Your task to perform on an android device: Search for "bose soundlink" on ebay, select the first entry, and add it to the cart. Image 0: 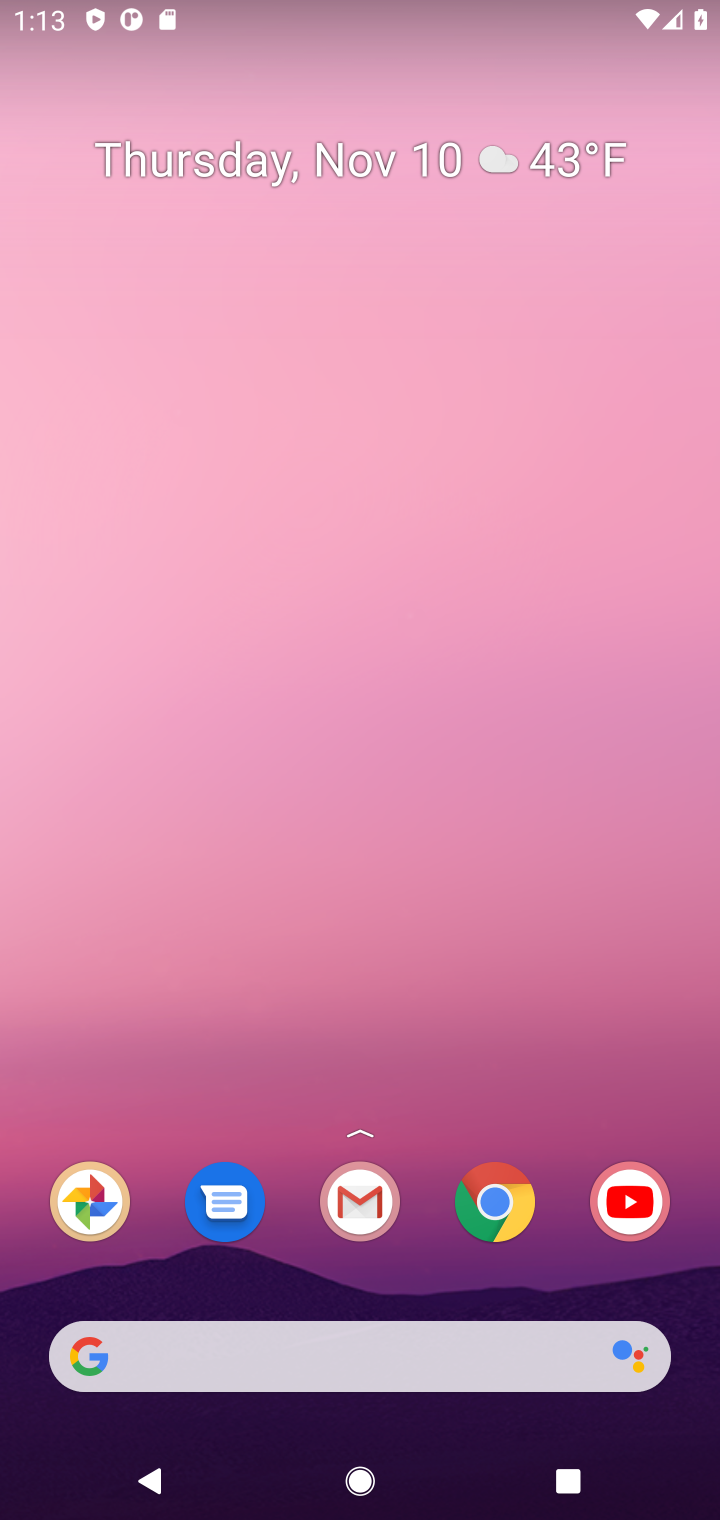
Step 0: click (486, 1184)
Your task to perform on an android device: Search for "bose soundlink" on ebay, select the first entry, and add it to the cart. Image 1: 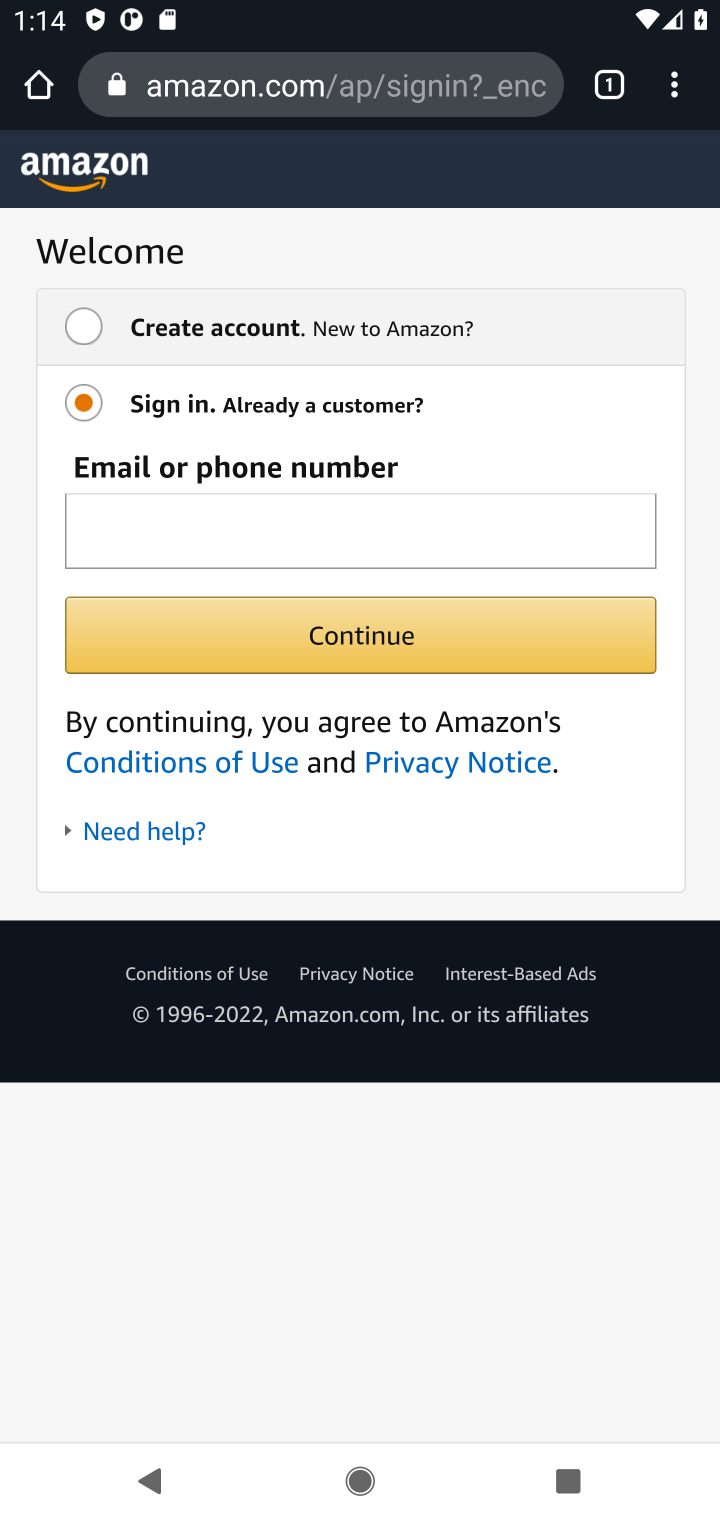
Step 1: click (383, 84)
Your task to perform on an android device: Search for "bose soundlink" on ebay, select the first entry, and add it to the cart. Image 2: 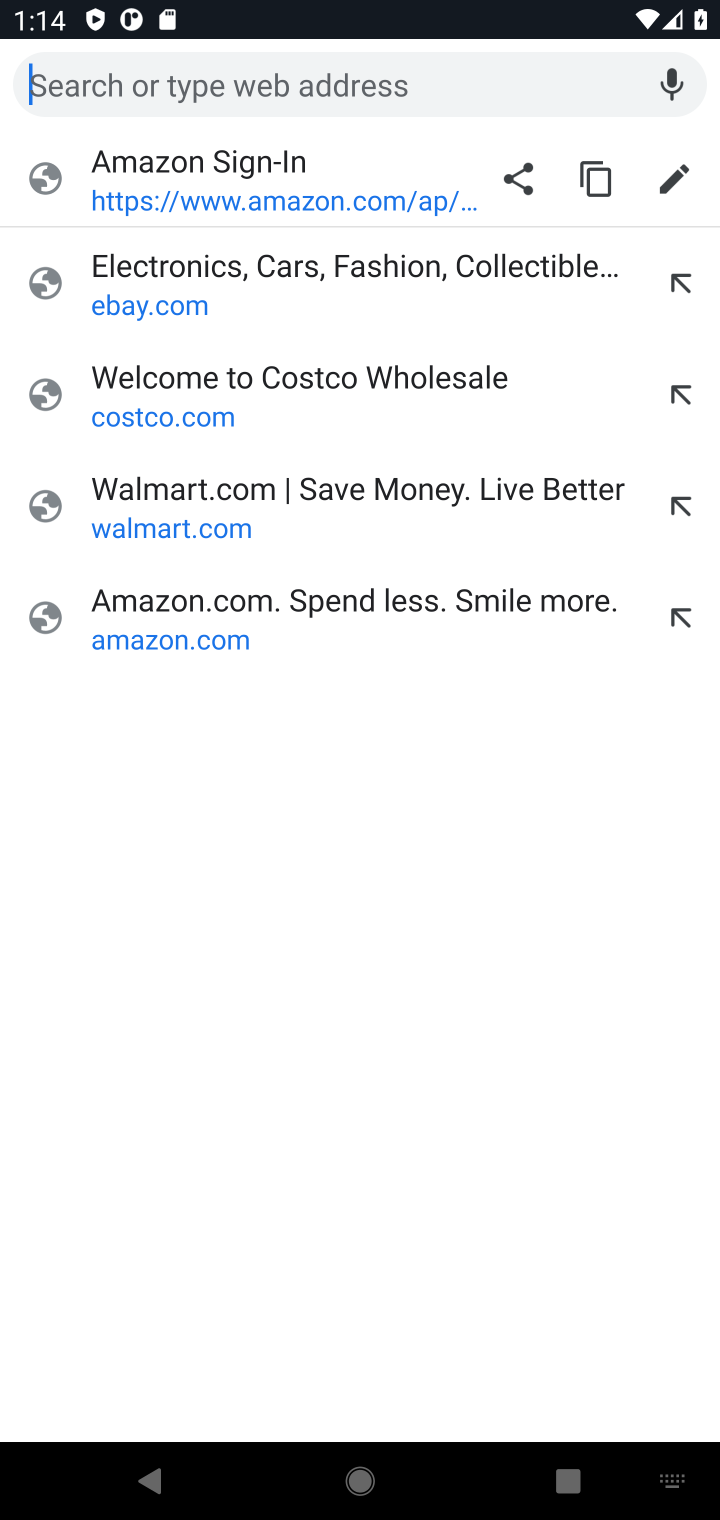
Step 2: type "ebay"
Your task to perform on an android device: Search for "bose soundlink" on ebay, select the first entry, and add it to the cart. Image 3: 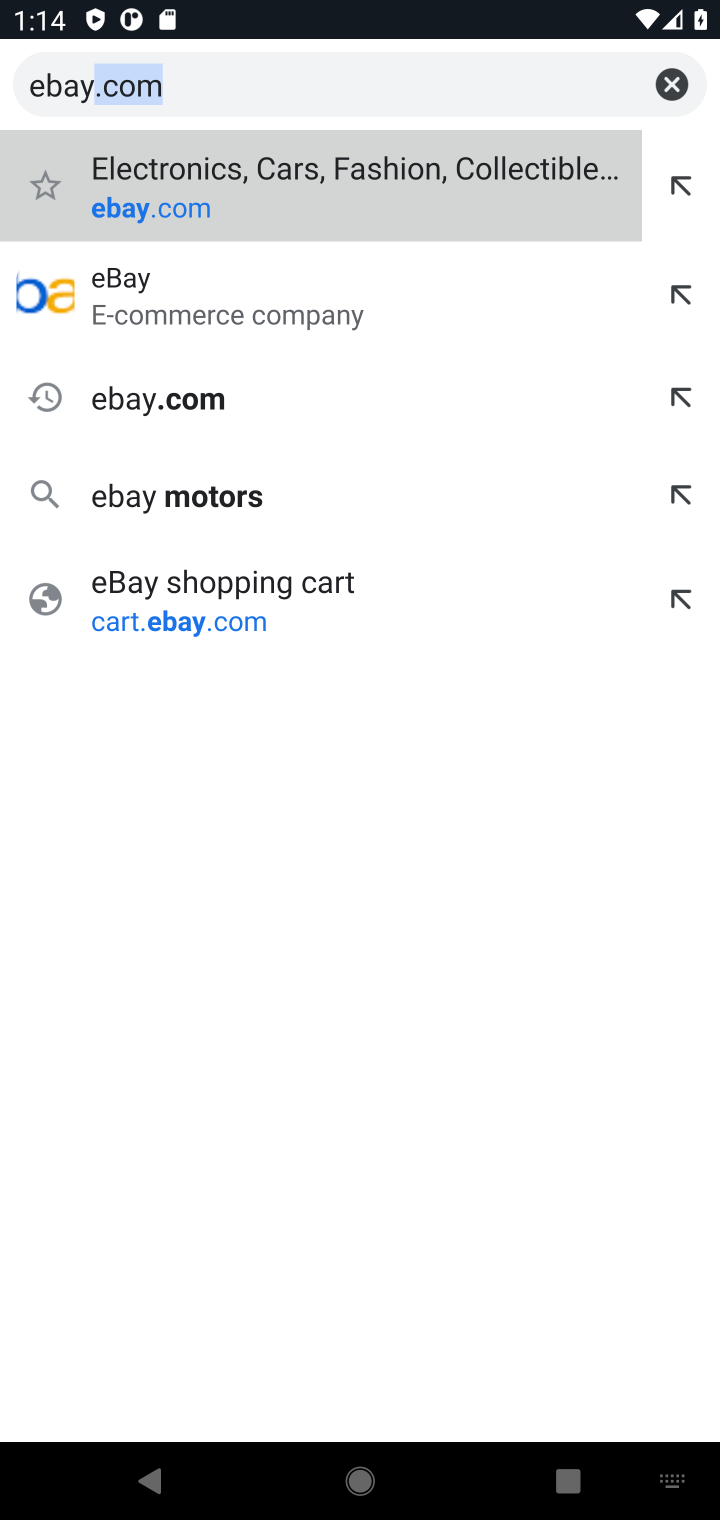
Step 3: click (466, 73)
Your task to perform on an android device: Search for "bose soundlink" on ebay, select the first entry, and add it to the cart. Image 4: 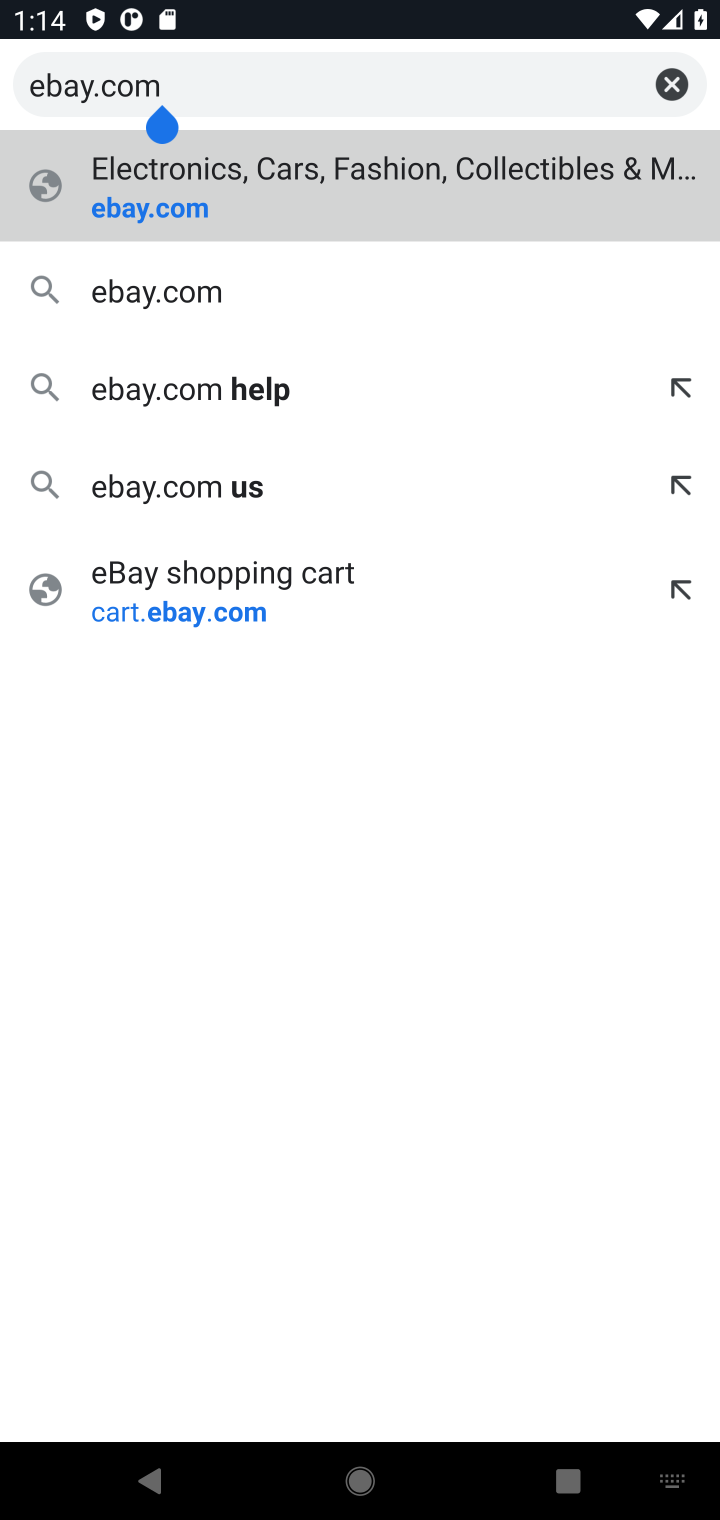
Step 4: click (190, 281)
Your task to perform on an android device: Search for "bose soundlink" on ebay, select the first entry, and add it to the cart. Image 5: 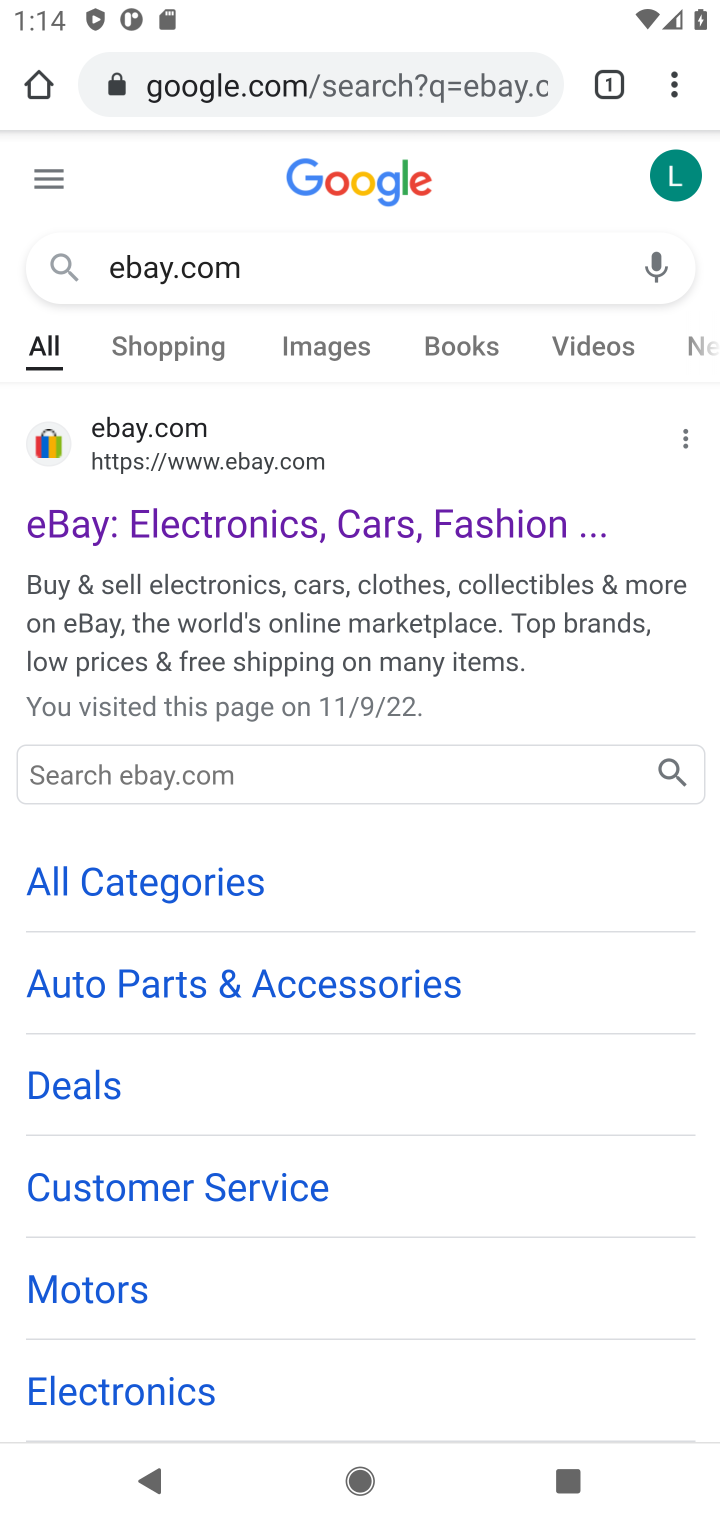
Step 5: click (247, 452)
Your task to perform on an android device: Search for "bose soundlink" on ebay, select the first entry, and add it to the cart. Image 6: 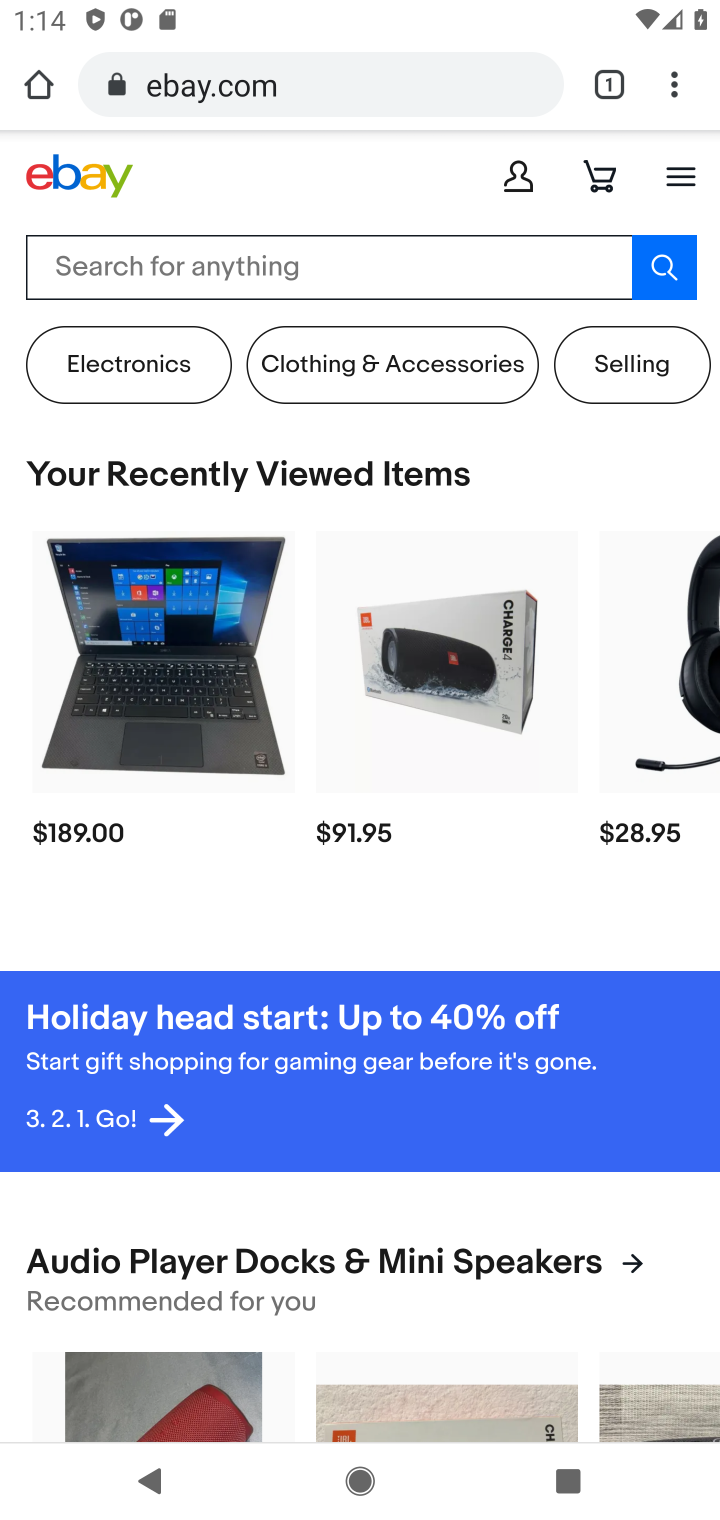
Step 6: click (490, 253)
Your task to perform on an android device: Search for "bose soundlink" on ebay, select the first entry, and add it to the cart. Image 7: 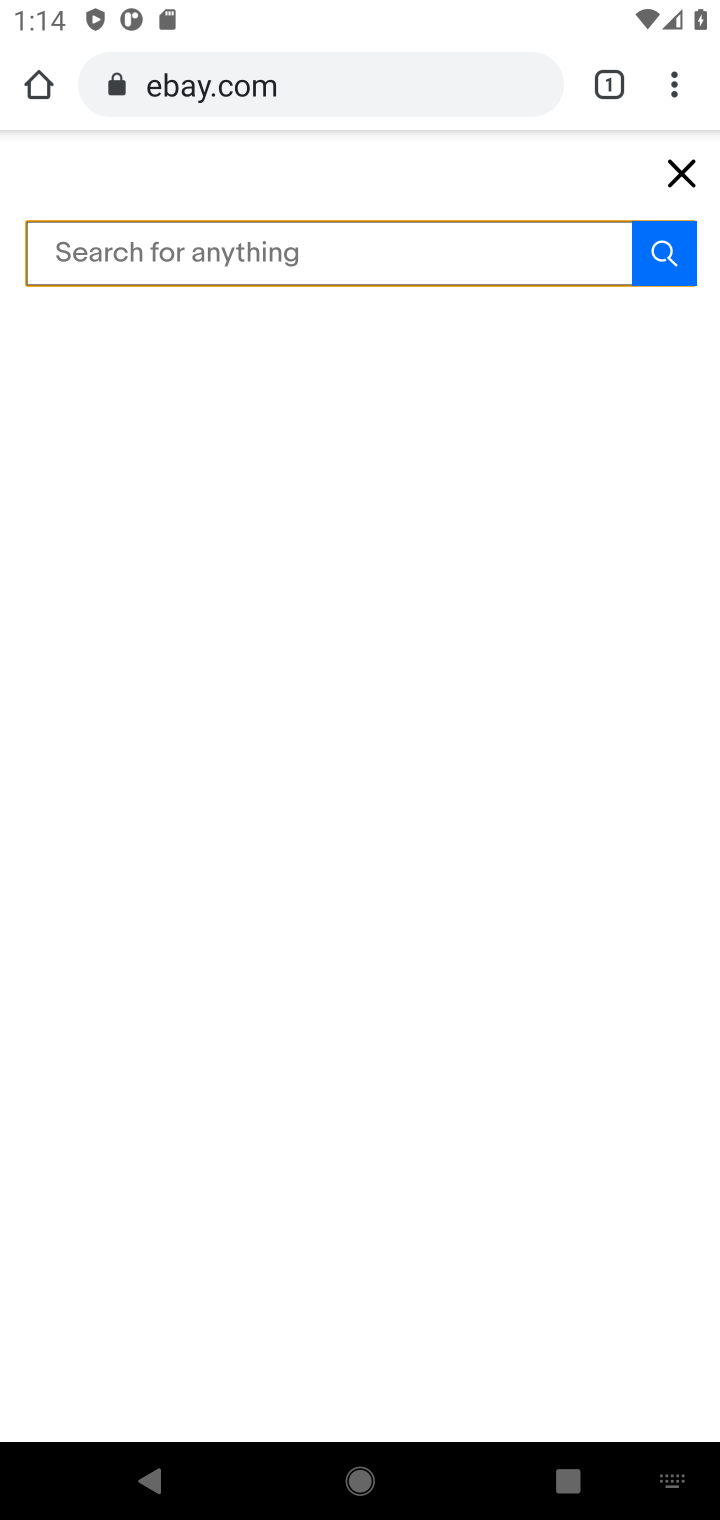
Step 7: type "bose soundlink"
Your task to perform on an android device: Search for "bose soundlink" on ebay, select the first entry, and add it to the cart. Image 8: 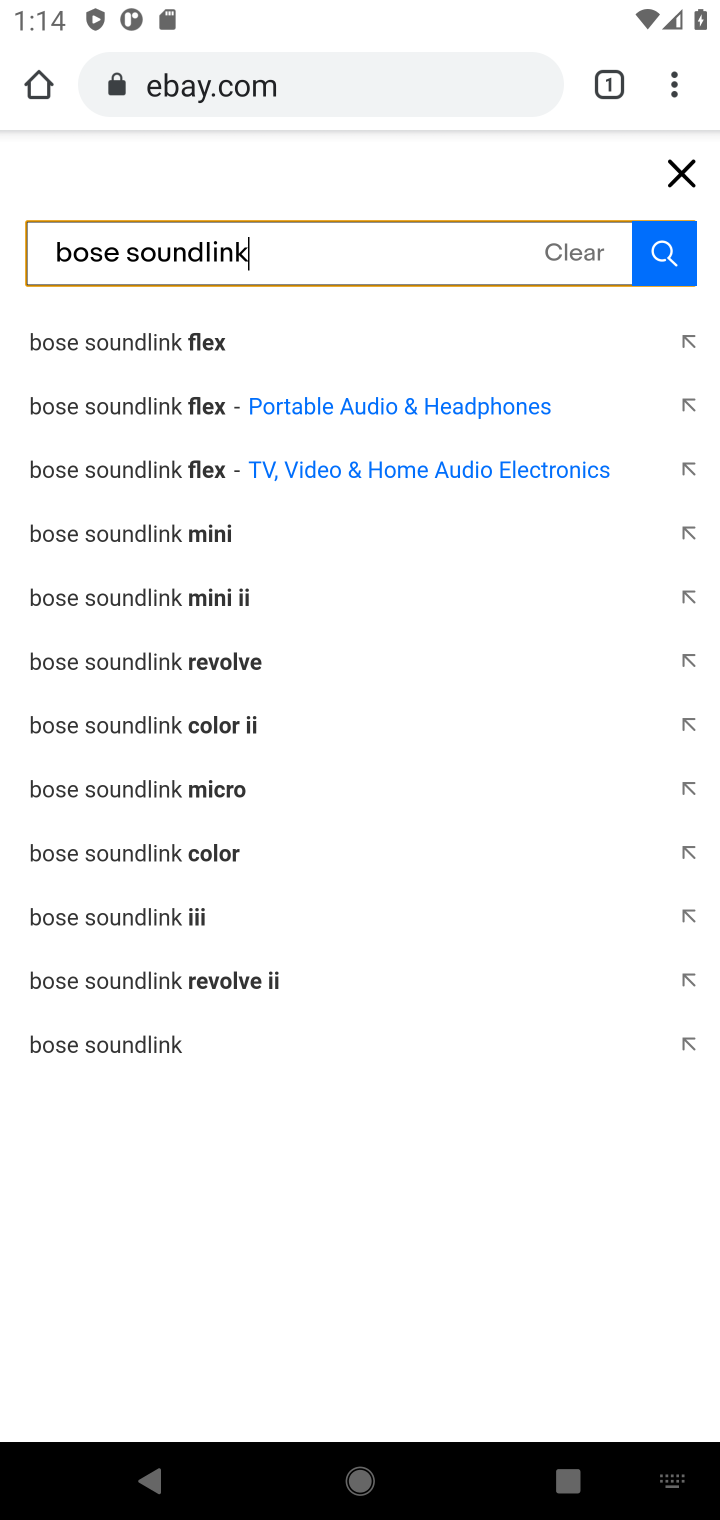
Step 8: click (214, 523)
Your task to perform on an android device: Search for "bose soundlink" on ebay, select the first entry, and add it to the cart. Image 9: 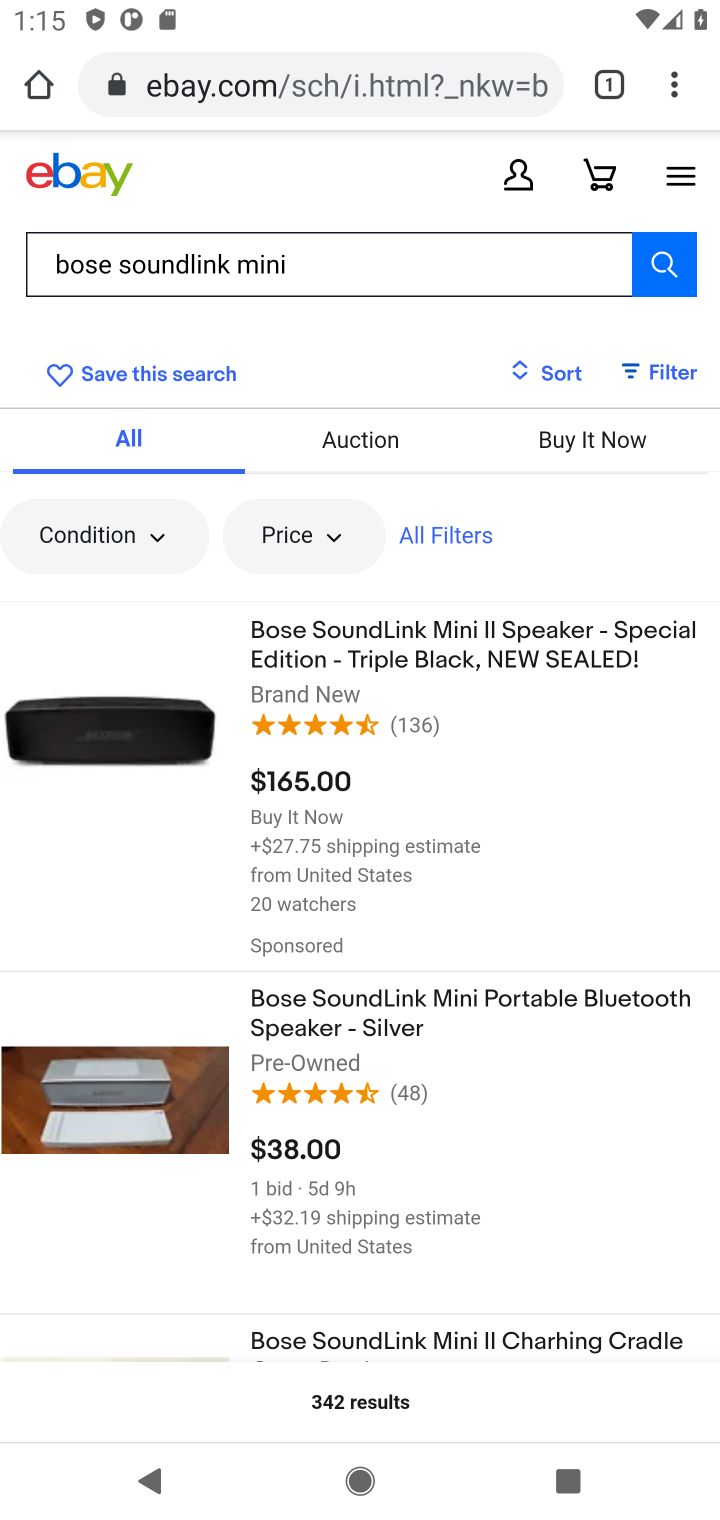
Step 9: click (96, 1086)
Your task to perform on an android device: Search for "bose soundlink" on ebay, select the first entry, and add it to the cart. Image 10: 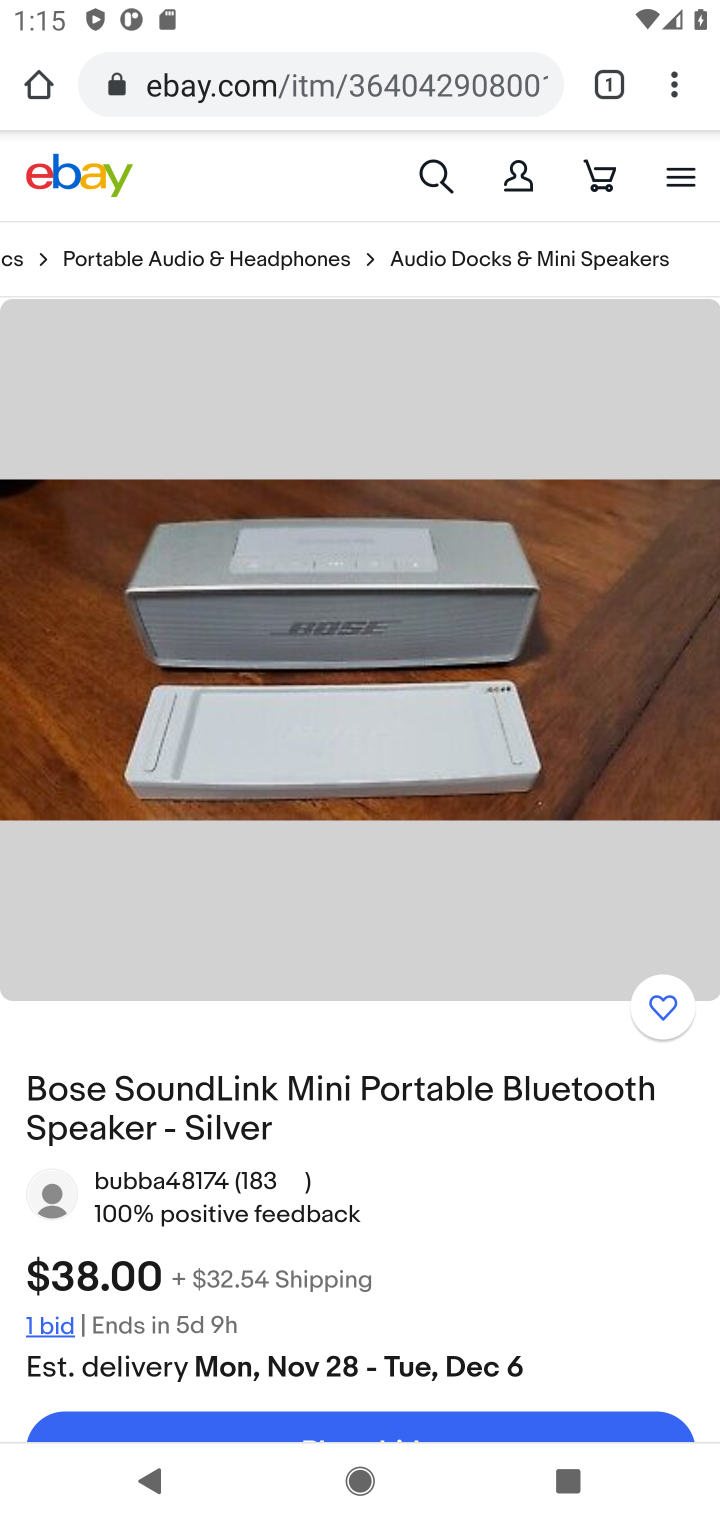
Step 10: press back button
Your task to perform on an android device: Search for "bose soundlink" on ebay, select the first entry, and add it to the cart. Image 11: 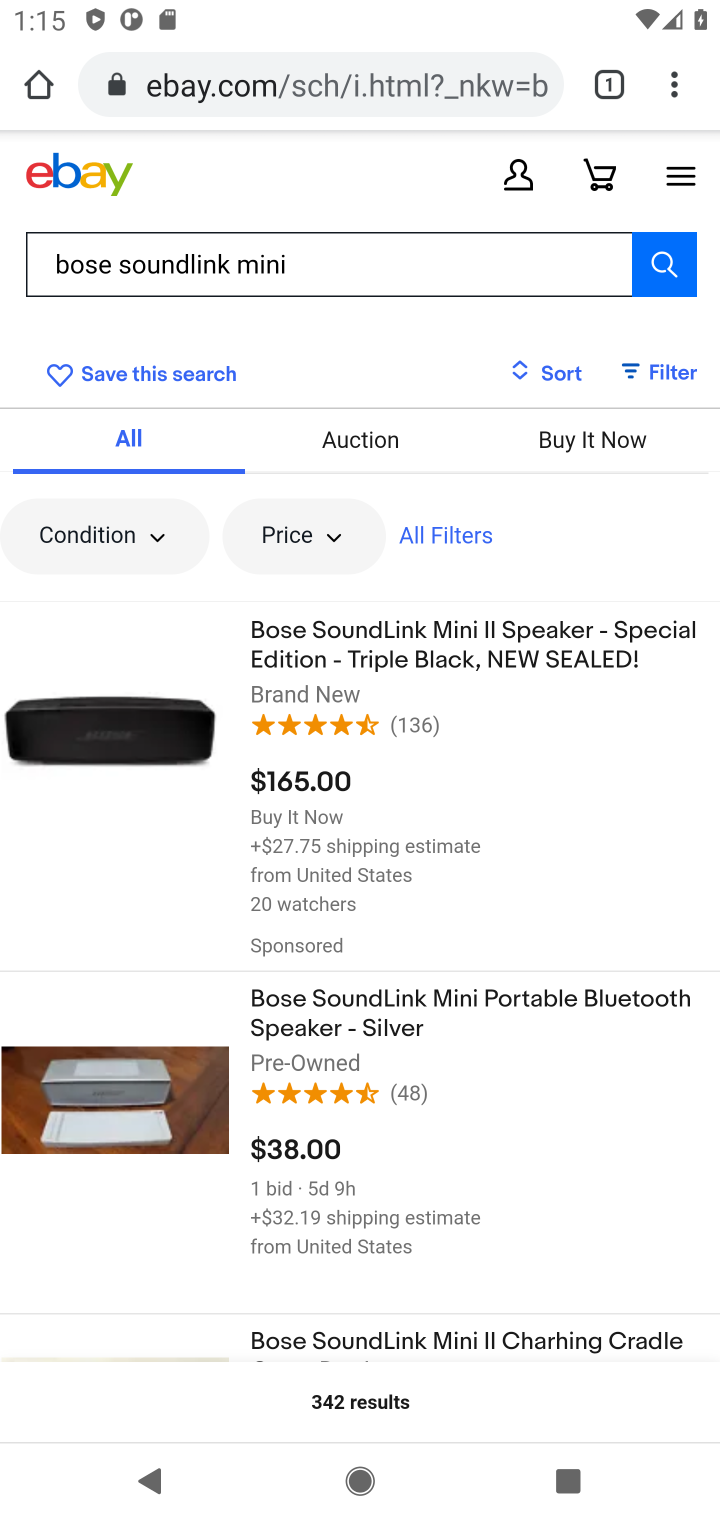
Step 11: drag from (560, 1107) to (537, 811)
Your task to perform on an android device: Search for "bose soundlink" on ebay, select the first entry, and add it to the cart. Image 12: 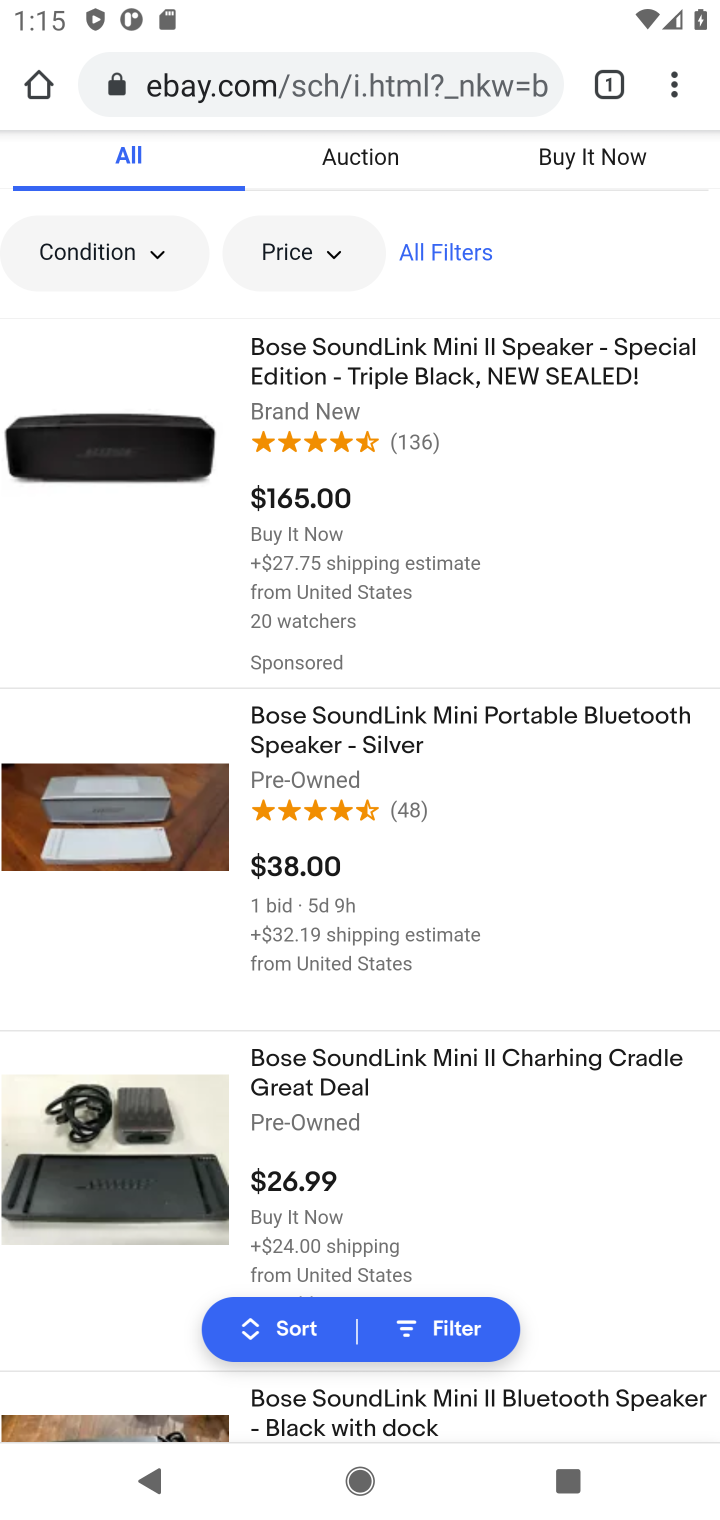
Step 12: drag from (568, 1171) to (441, 703)
Your task to perform on an android device: Search for "bose soundlink" on ebay, select the first entry, and add it to the cart. Image 13: 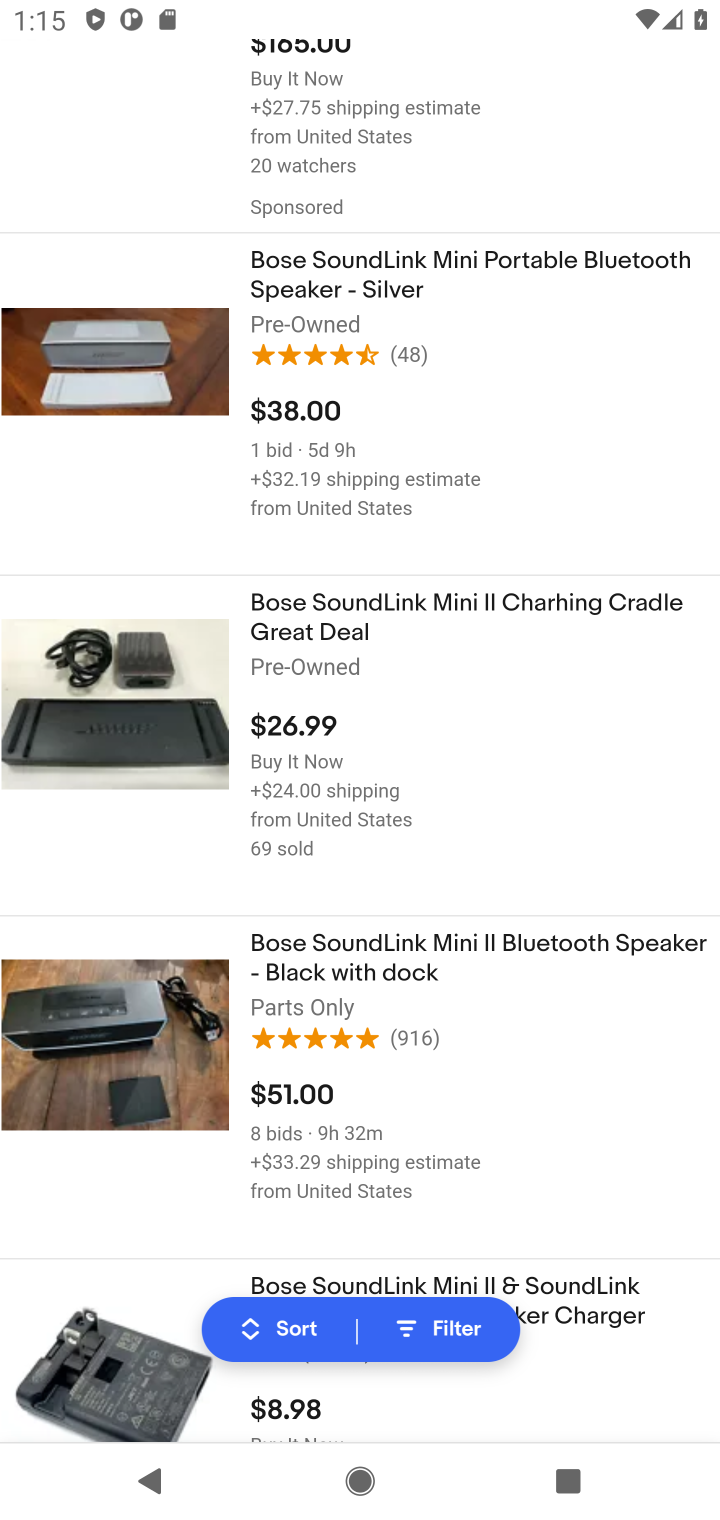
Step 13: drag from (528, 1037) to (501, 789)
Your task to perform on an android device: Search for "bose soundlink" on ebay, select the first entry, and add it to the cart. Image 14: 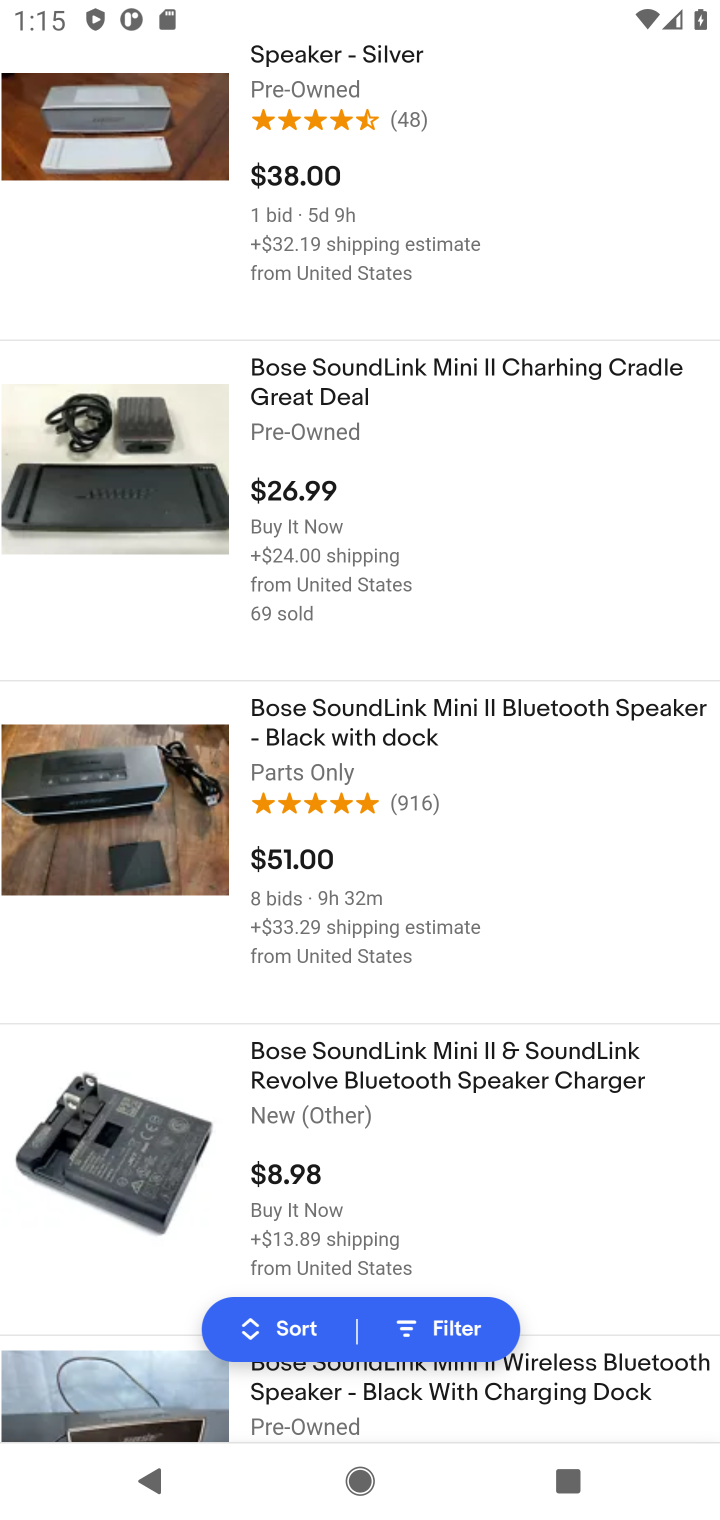
Step 14: drag from (565, 1177) to (512, 753)
Your task to perform on an android device: Search for "bose soundlink" on ebay, select the first entry, and add it to the cart. Image 15: 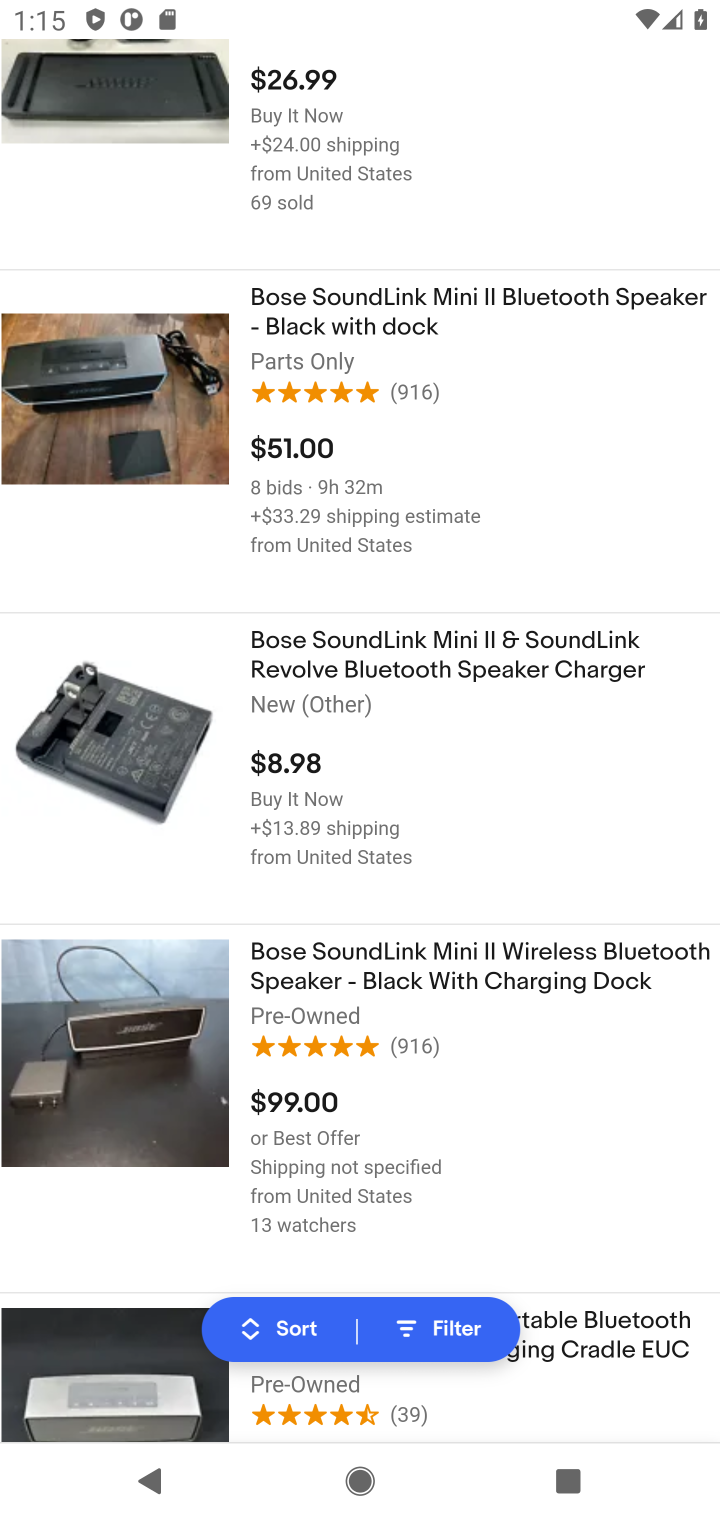
Step 15: drag from (541, 874) to (541, 782)
Your task to perform on an android device: Search for "bose soundlink" on ebay, select the first entry, and add it to the cart. Image 16: 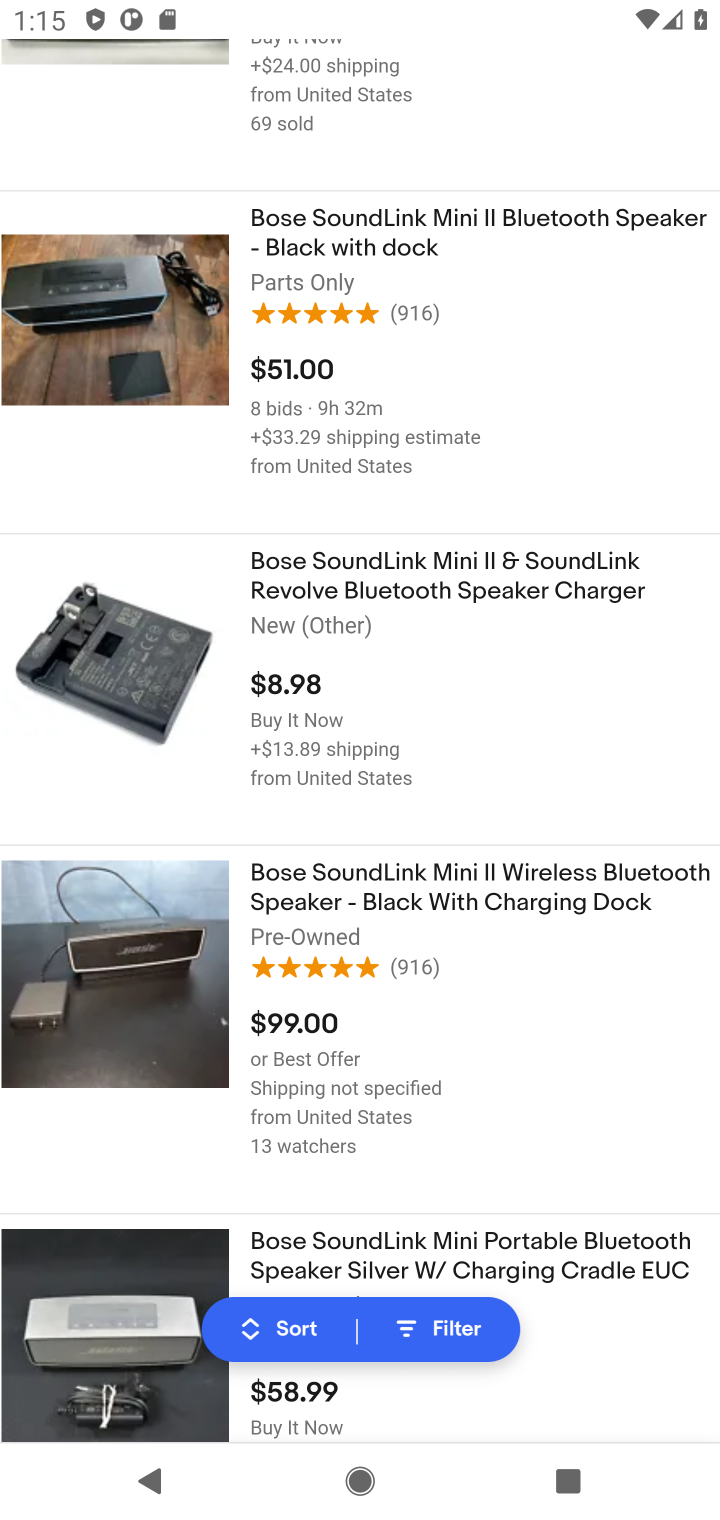
Step 16: drag from (539, 1131) to (472, 617)
Your task to perform on an android device: Search for "bose soundlink" on ebay, select the first entry, and add it to the cart. Image 17: 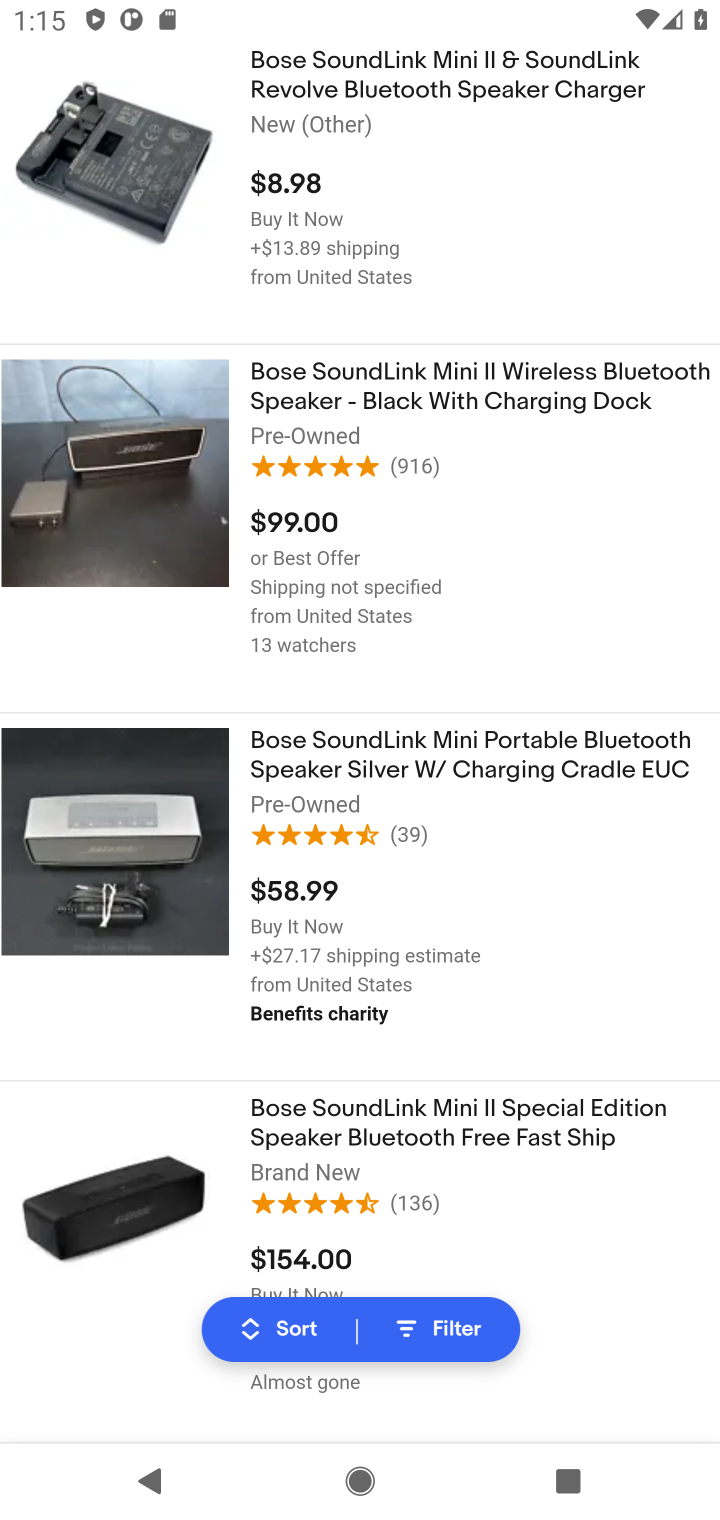
Step 17: drag from (498, 457) to (609, 1366)
Your task to perform on an android device: Search for "bose soundlink" on ebay, select the first entry, and add it to the cart. Image 18: 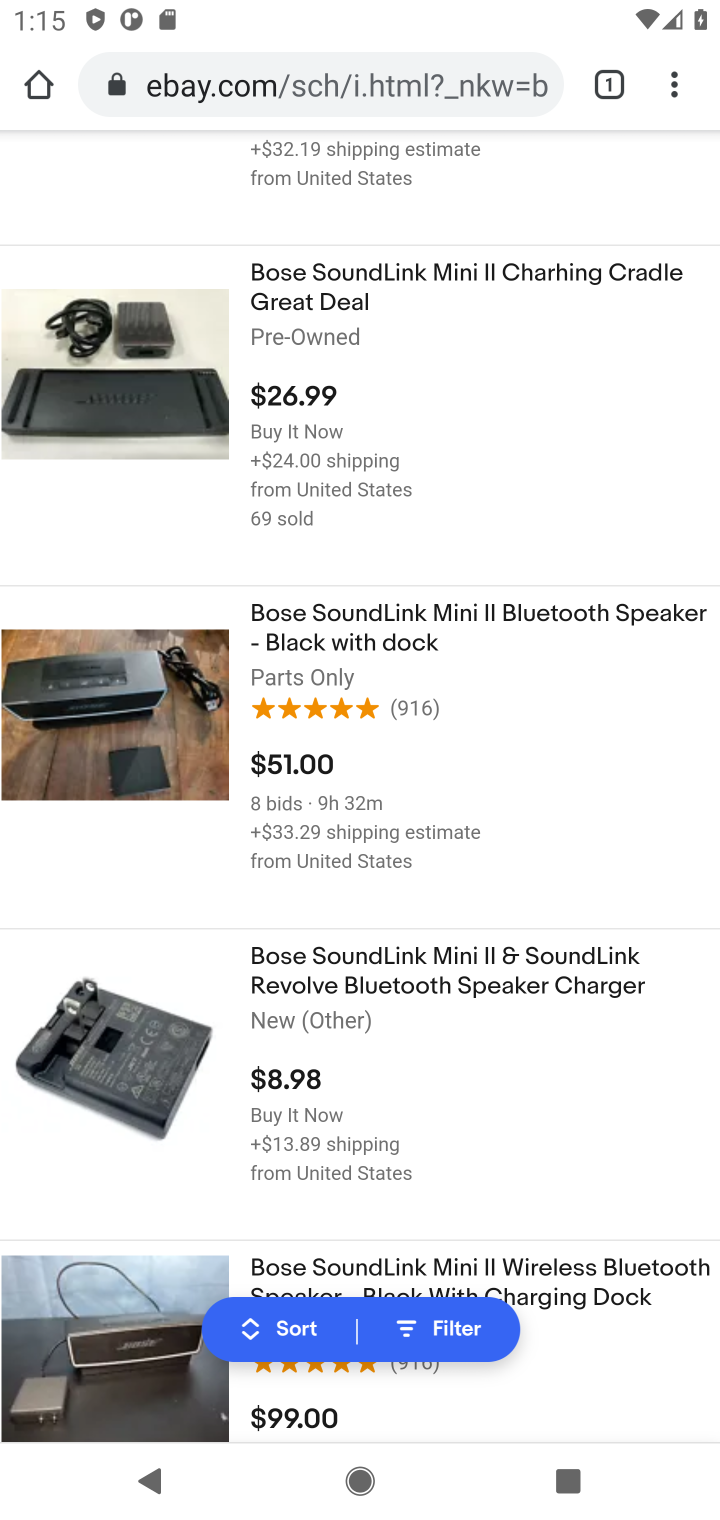
Step 18: drag from (568, 696) to (563, 1339)
Your task to perform on an android device: Search for "bose soundlink" on ebay, select the first entry, and add it to the cart. Image 19: 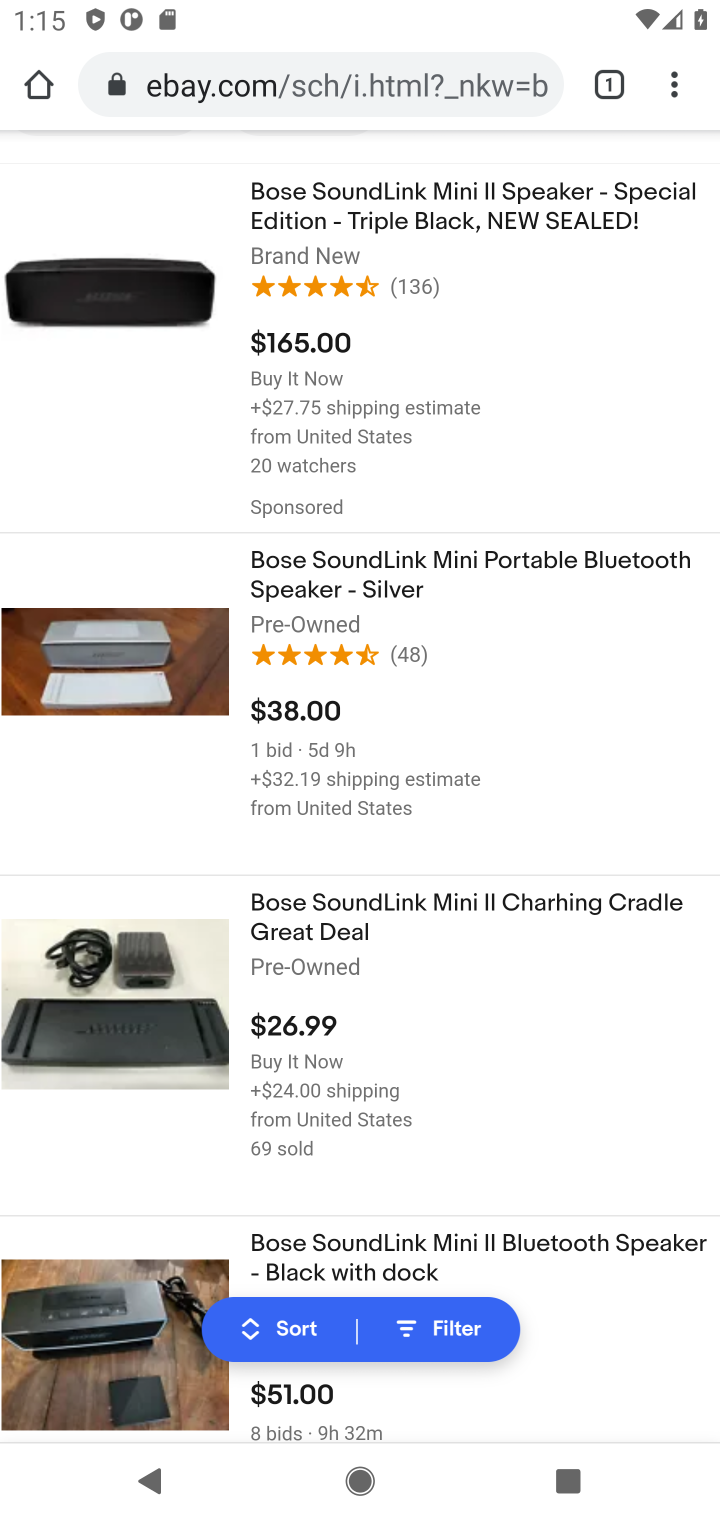
Step 19: drag from (547, 658) to (619, 1353)
Your task to perform on an android device: Search for "bose soundlink" on ebay, select the first entry, and add it to the cart. Image 20: 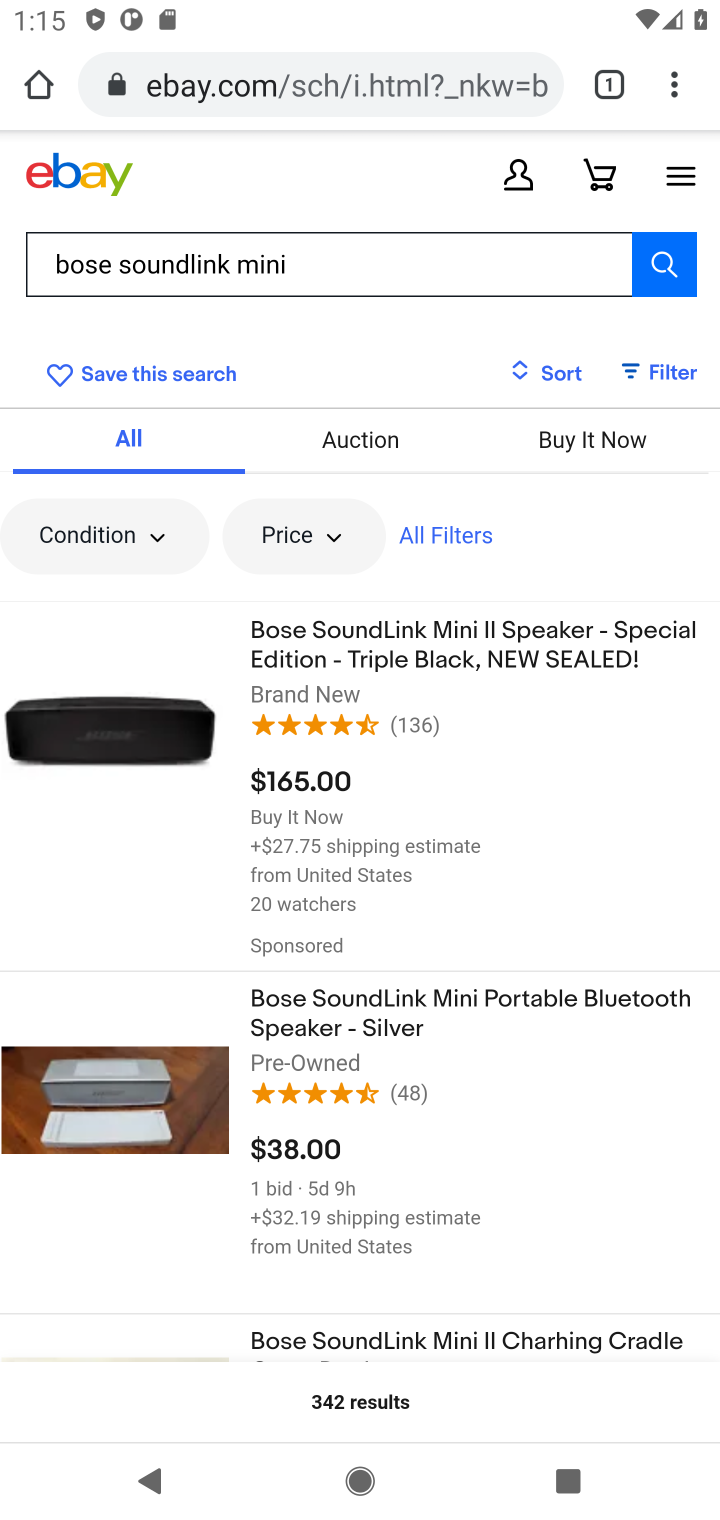
Step 20: click (132, 760)
Your task to perform on an android device: Search for "bose soundlink" on ebay, select the first entry, and add it to the cart. Image 21: 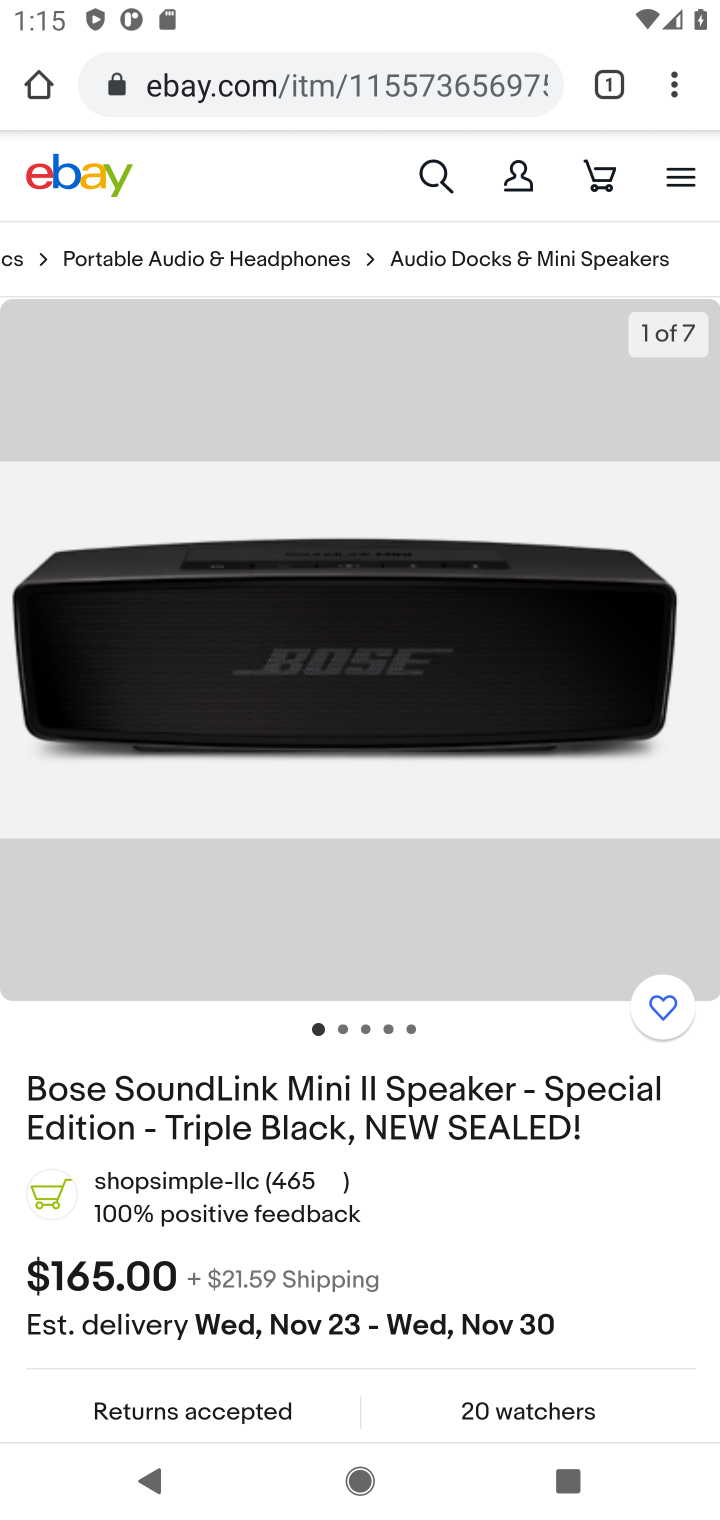
Step 21: drag from (492, 950) to (552, 467)
Your task to perform on an android device: Search for "bose soundlink" on ebay, select the first entry, and add it to the cart. Image 22: 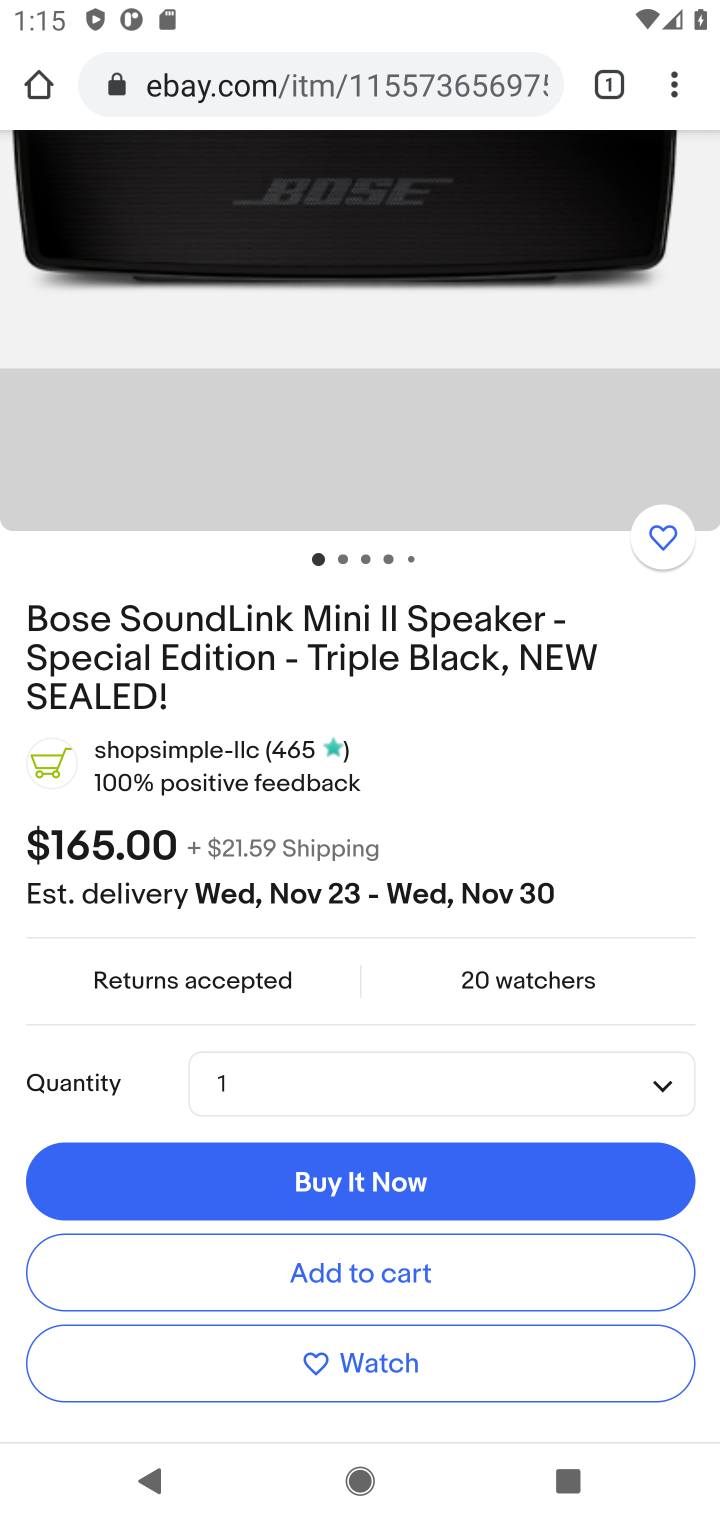
Step 22: click (361, 1264)
Your task to perform on an android device: Search for "bose soundlink" on ebay, select the first entry, and add it to the cart. Image 23: 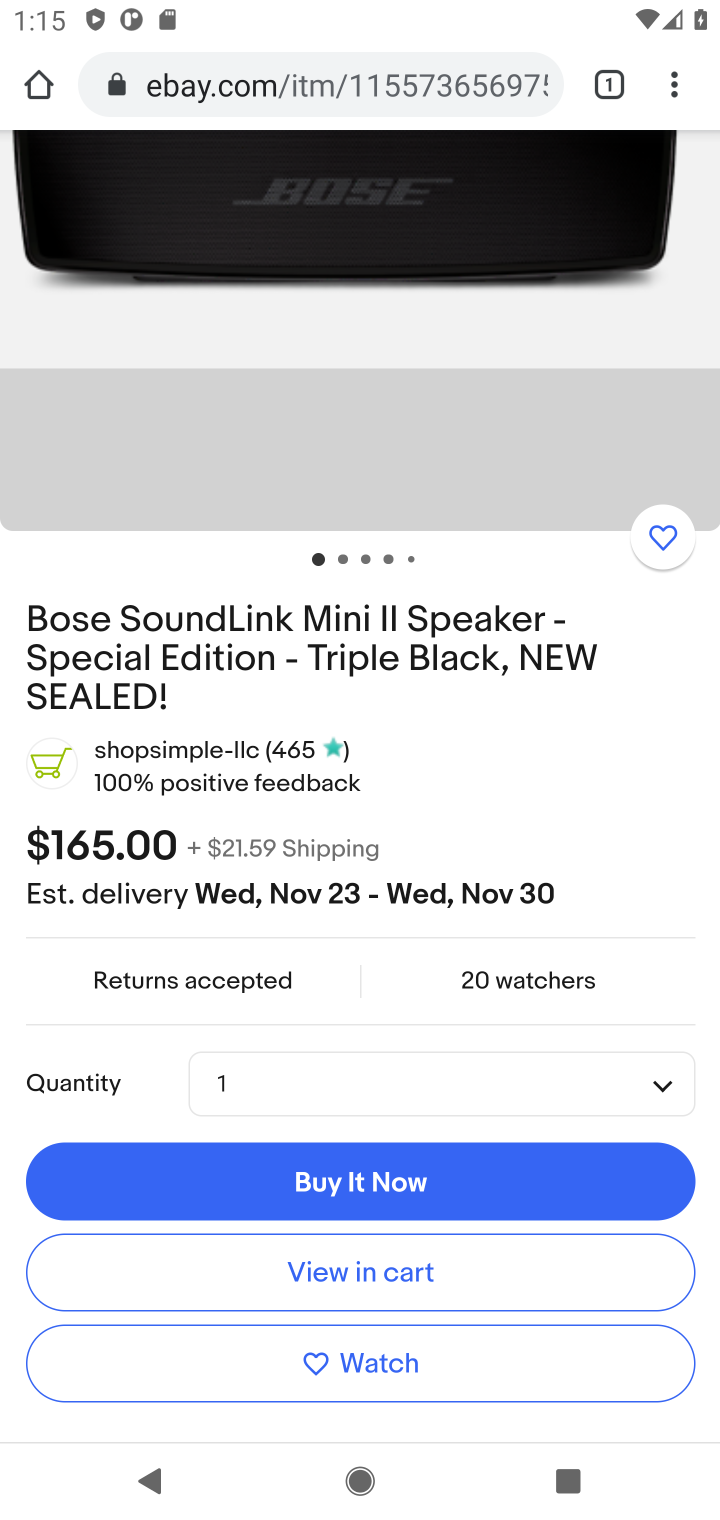
Step 23: click (361, 1264)
Your task to perform on an android device: Search for "bose soundlink" on ebay, select the first entry, and add it to the cart. Image 24: 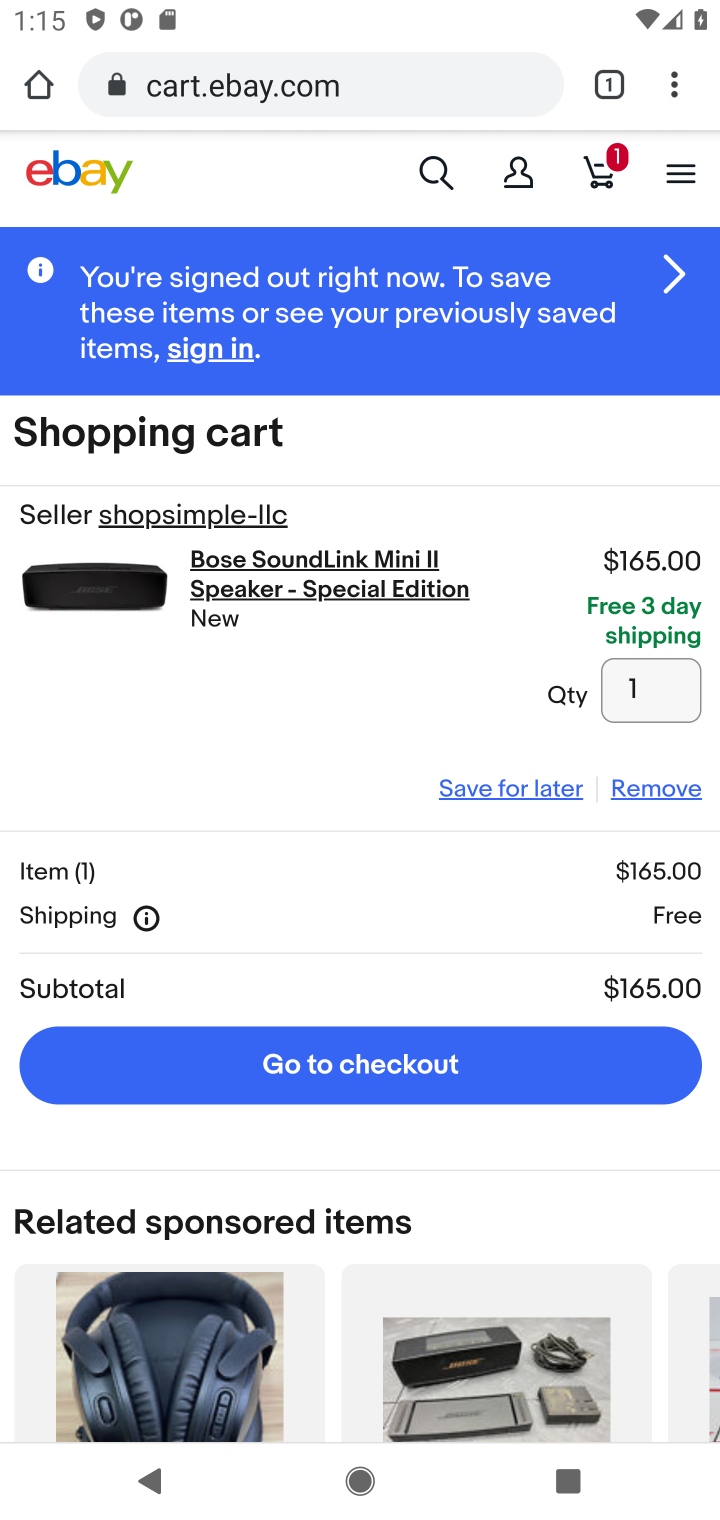
Step 24: task complete